Your task to perform on an android device: Go to battery settings Image 0: 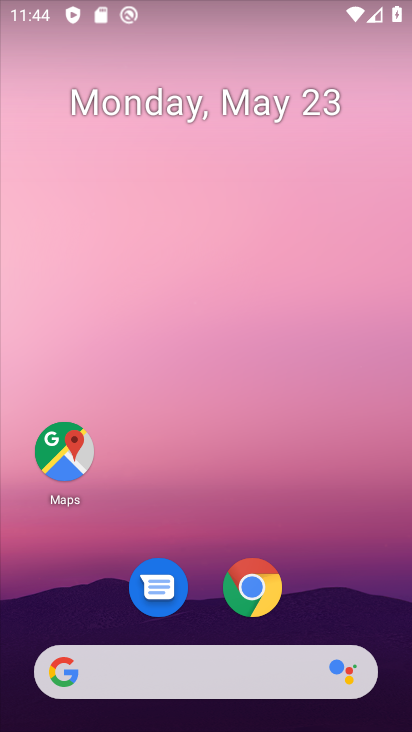
Step 0: drag from (227, 712) to (253, 4)
Your task to perform on an android device: Go to battery settings Image 1: 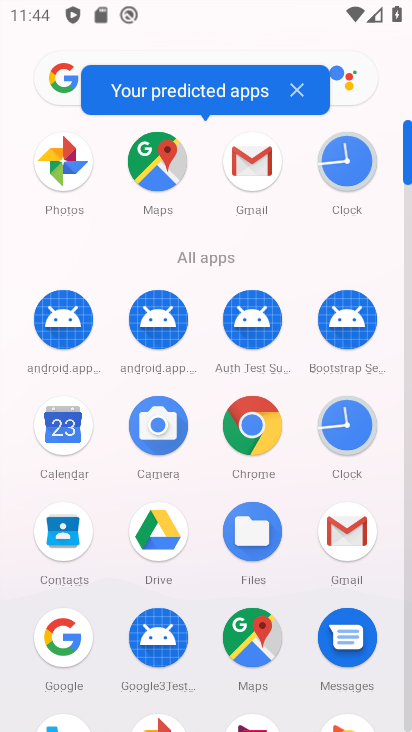
Step 1: drag from (278, 536) to (225, 16)
Your task to perform on an android device: Go to battery settings Image 2: 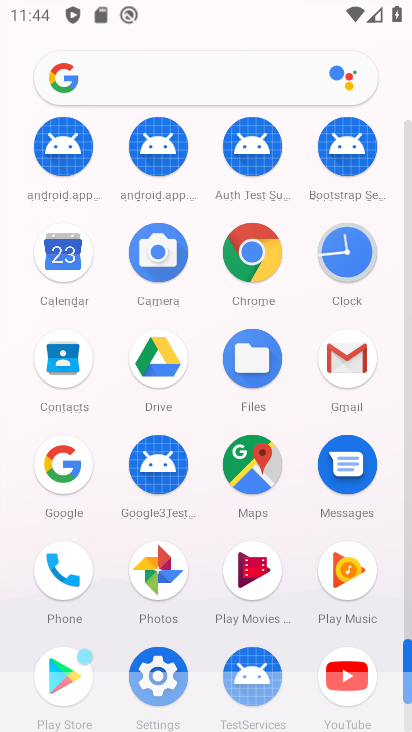
Step 2: click (152, 647)
Your task to perform on an android device: Go to battery settings Image 3: 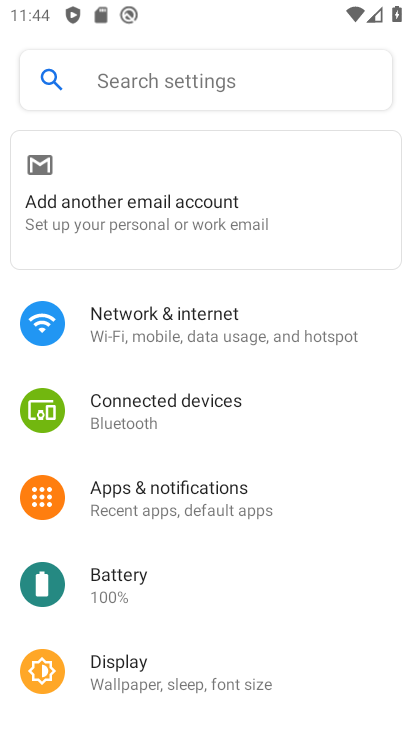
Step 3: click (191, 591)
Your task to perform on an android device: Go to battery settings Image 4: 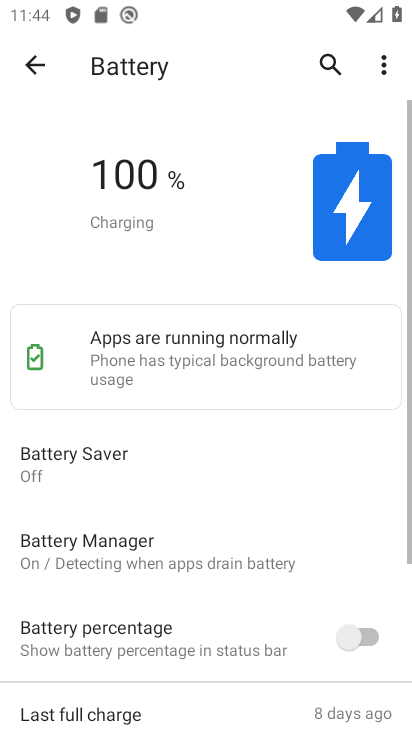
Step 4: click (374, 64)
Your task to perform on an android device: Go to battery settings Image 5: 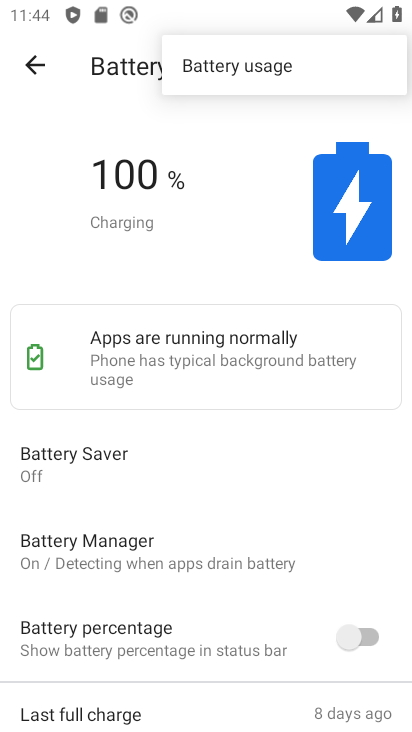
Step 5: click (284, 65)
Your task to perform on an android device: Go to battery settings Image 6: 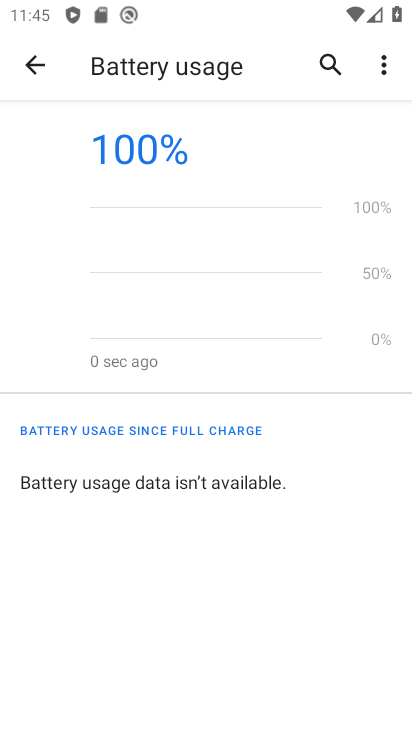
Step 6: task complete